Your task to perform on an android device: uninstall "Google Calendar" Image 0: 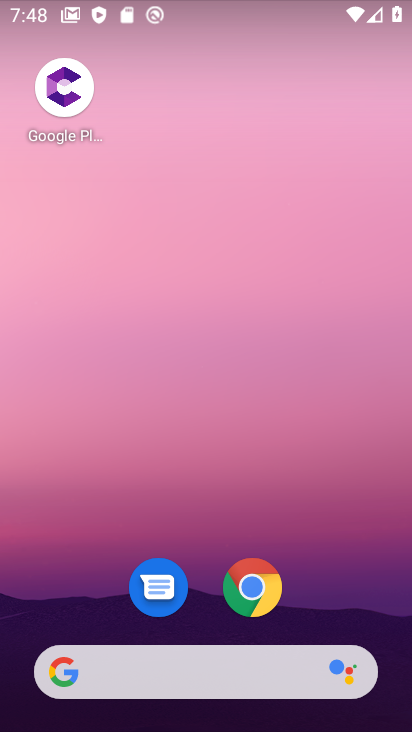
Step 0: drag from (209, 622) to (272, 39)
Your task to perform on an android device: uninstall "Google Calendar" Image 1: 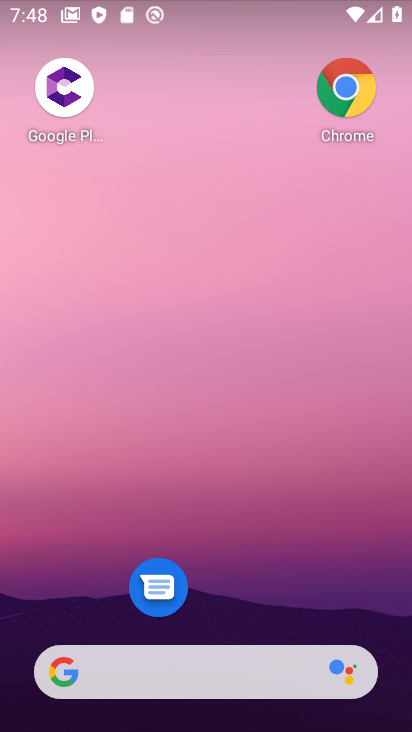
Step 1: drag from (272, 628) to (336, 161)
Your task to perform on an android device: uninstall "Google Calendar" Image 2: 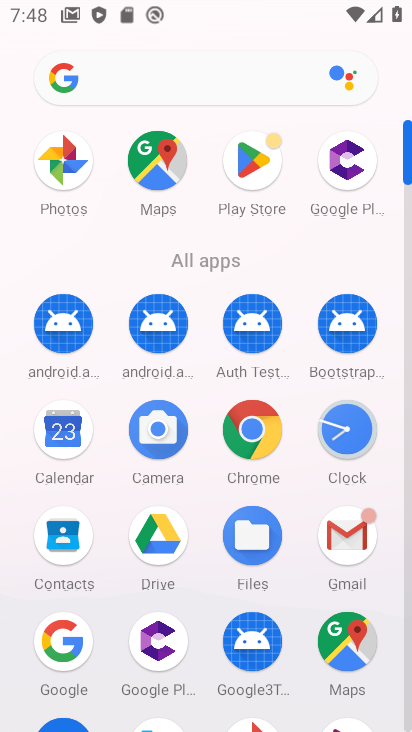
Step 2: click (255, 188)
Your task to perform on an android device: uninstall "Google Calendar" Image 3: 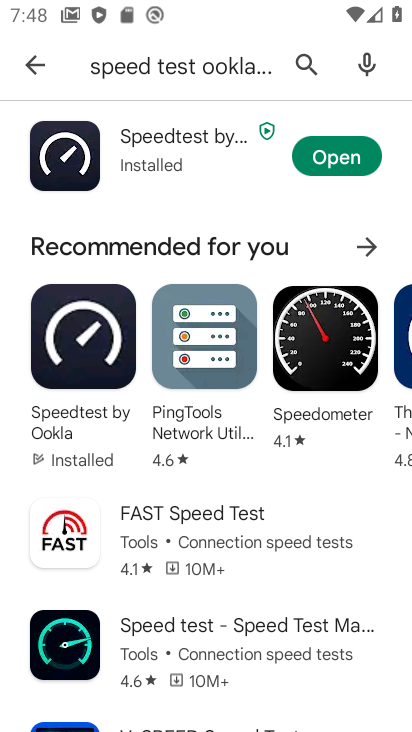
Step 3: click (300, 72)
Your task to perform on an android device: uninstall "Google Calendar" Image 4: 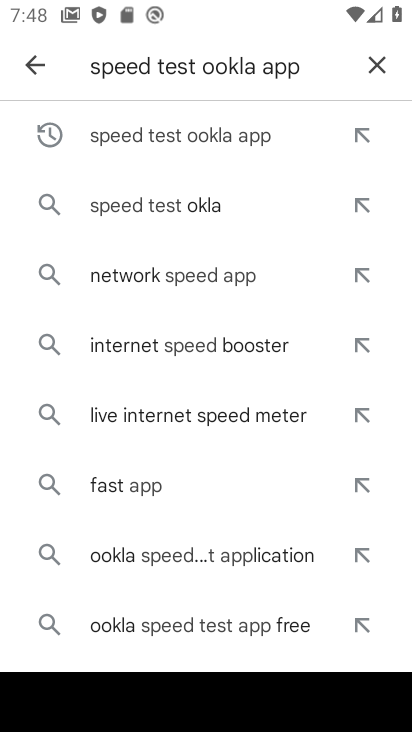
Step 4: click (372, 67)
Your task to perform on an android device: uninstall "Google Calendar" Image 5: 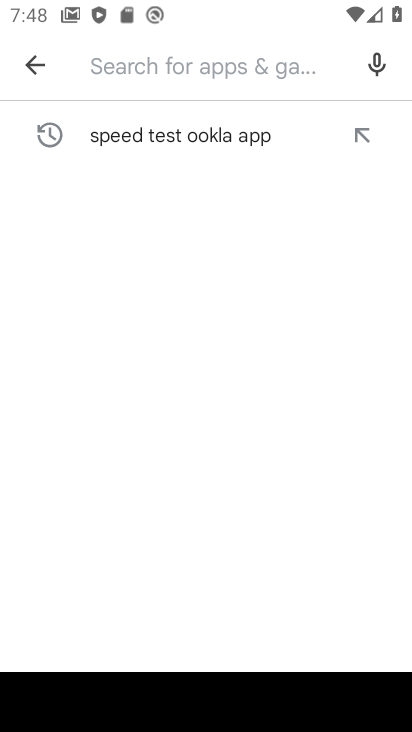
Step 5: type "google calndar"
Your task to perform on an android device: uninstall "Google Calendar" Image 6: 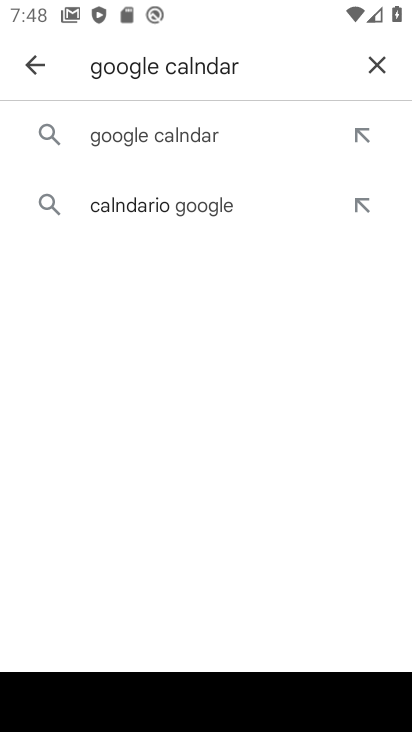
Step 6: click (190, 149)
Your task to perform on an android device: uninstall "Google Calendar" Image 7: 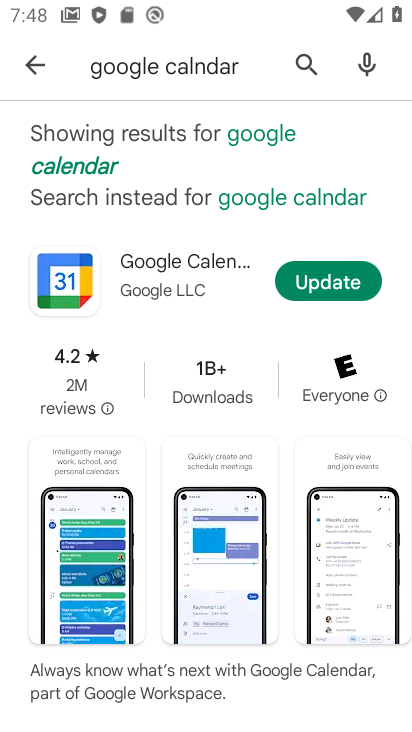
Step 7: click (306, 267)
Your task to perform on an android device: uninstall "Google Calendar" Image 8: 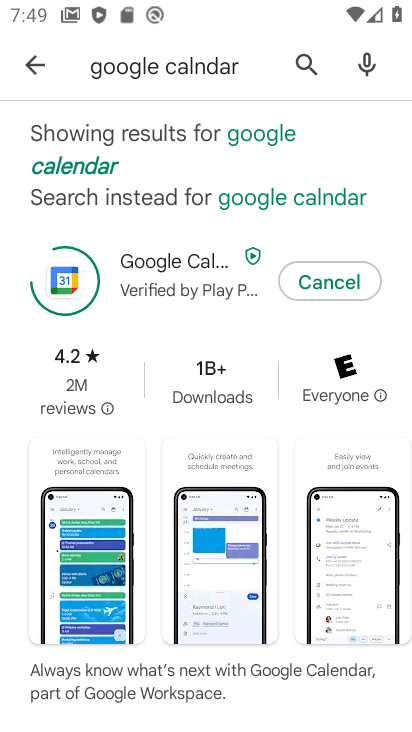
Step 8: task complete